Your task to perform on an android device: add a contact Image 0: 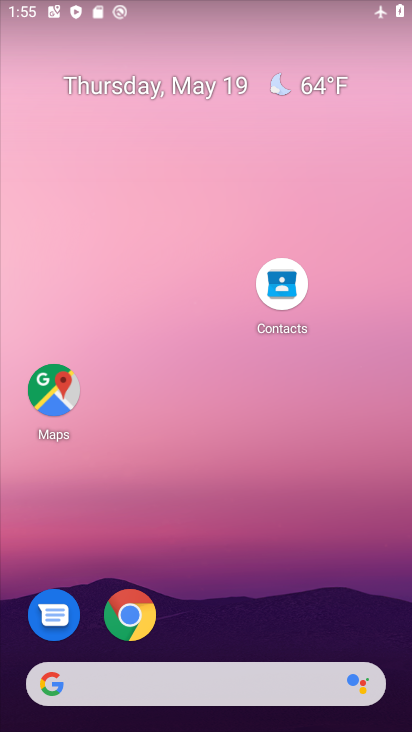
Step 0: drag from (230, 683) to (340, 117)
Your task to perform on an android device: add a contact Image 1: 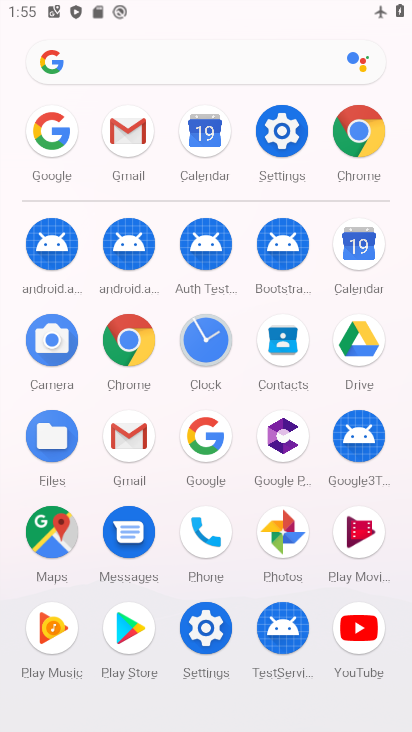
Step 1: click (291, 361)
Your task to perform on an android device: add a contact Image 2: 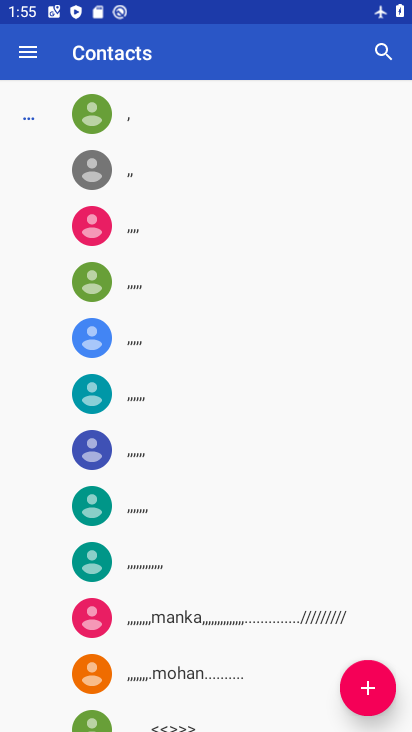
Step 2: click (383, 697)
Your task to perform on an android device: add a contact Image 3: 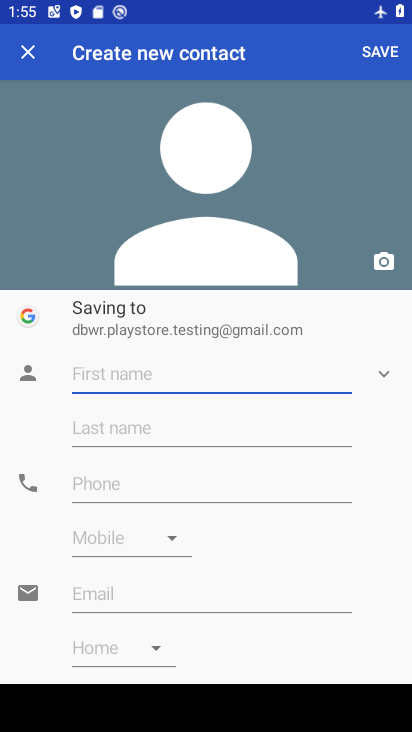
Step 3: type "hulo"
Your task to perform on an android device: add a contact Image 4: 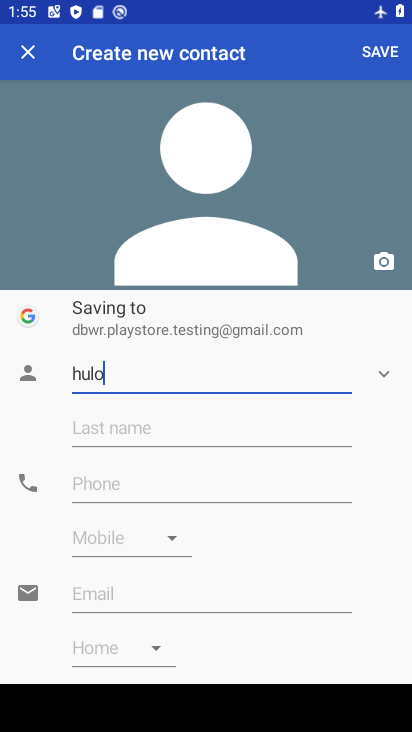
Step 4: click (195, 496)
Your task to perform on an android device: add a contact Image 5: 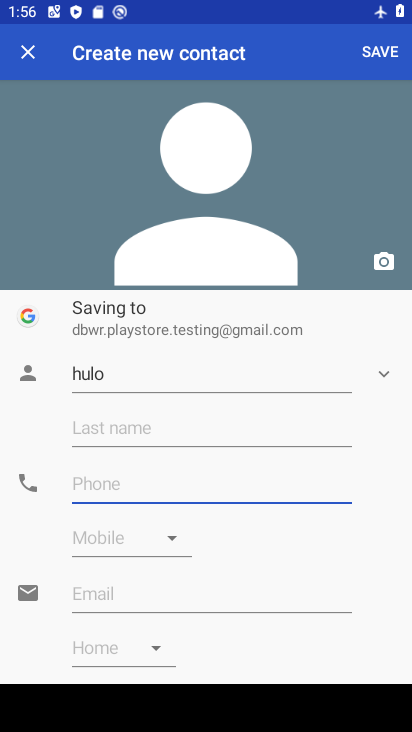
Step 5: type "788767764554"
Your task to perform on an android device: add a contact Image 6: 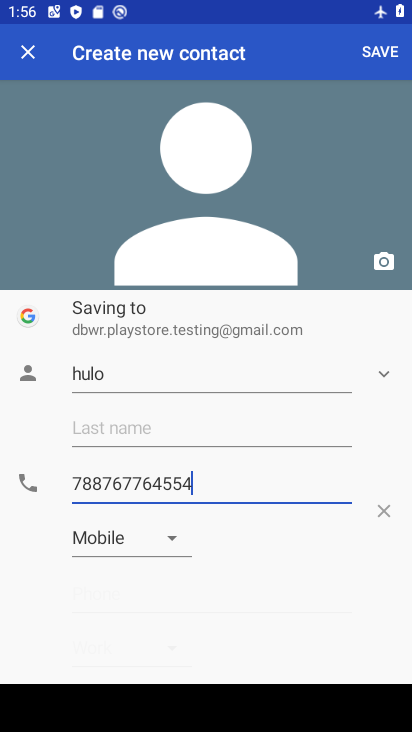
Step 6: type ""
Your task to perform on an android device: add a contact Image 7: 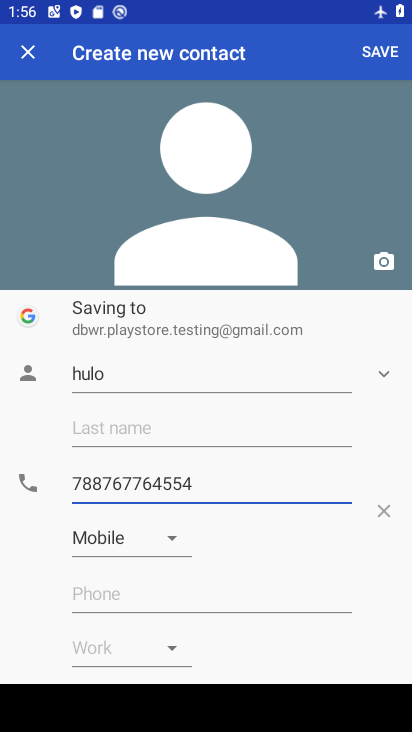
Step 7: click (399, 58)
Your task to perform on an android device: add a contact Image 8: 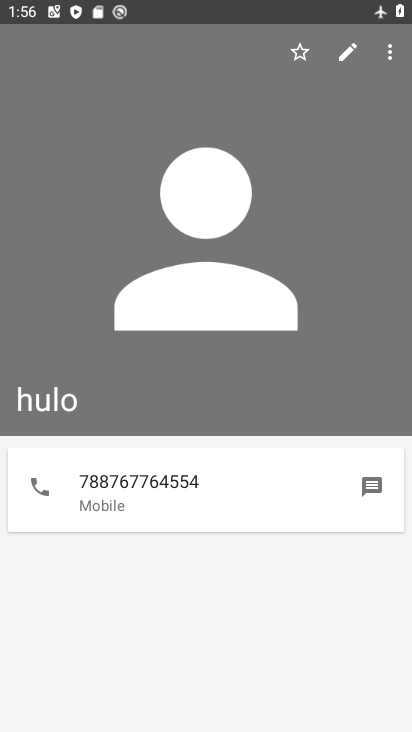
Step 8: task complete